Your task to perform on an android device: Find coffee shops on Maps Image 0: 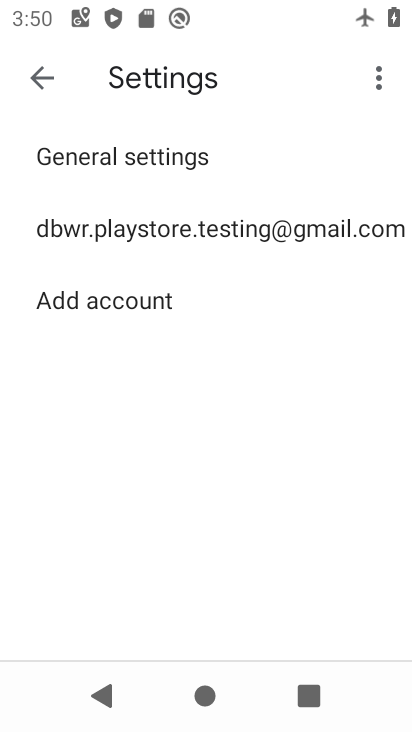
Step 0: press home button
Your task to perform on an android device: Find coffee shops on Maps Image 1: 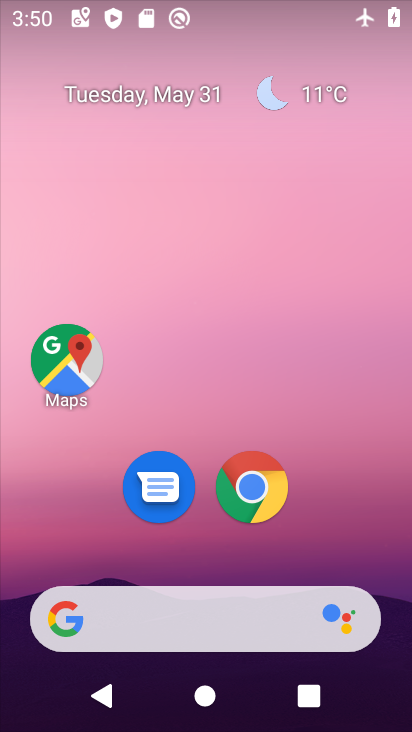
Step 1: click (63, 361)
Your task to perform on an android device: Find coffee shops on Maps Image 2: 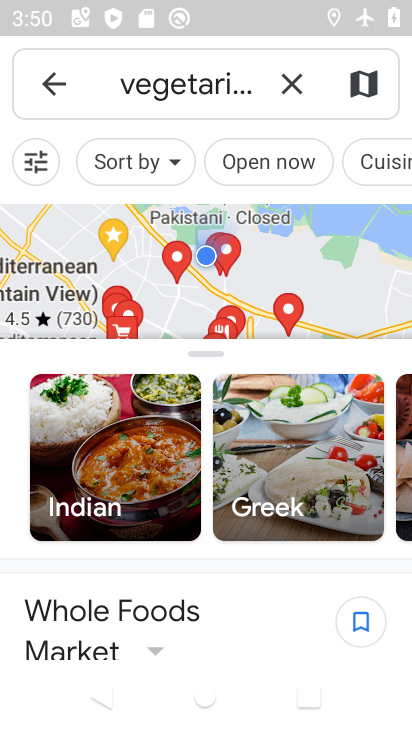
Step 2: click (286, 91)
Your task to perform on an android device: Find coffee shops on Maps Image 3: 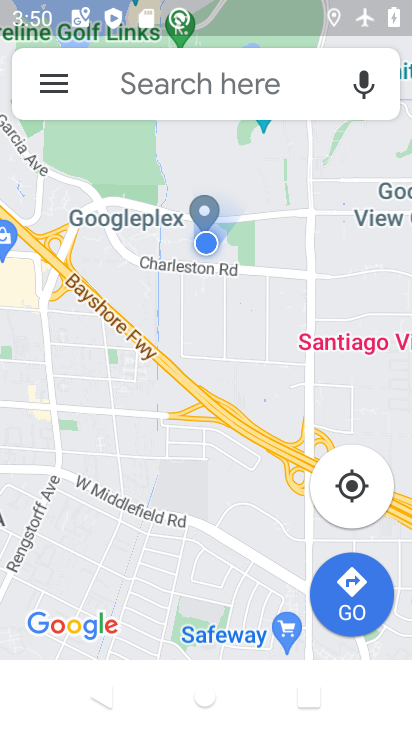
Step 3: click (242, 87)
Your task to perform on an android device: Find coffee shops on Maps Image 4: 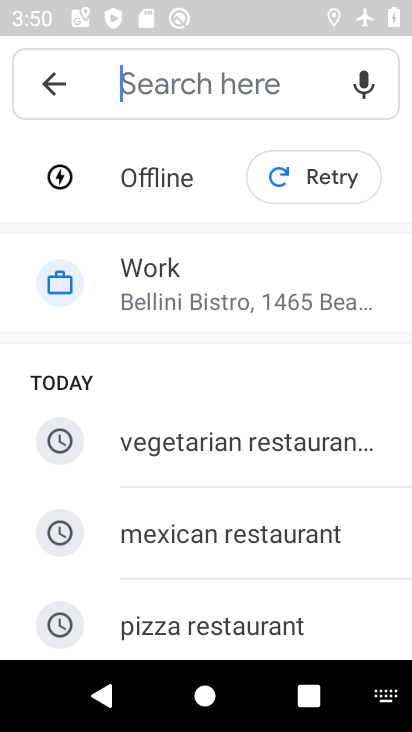
Step 4: type "coffee shops"
Your task to perform on an android device: Find coffee shops on Maps Image 5: 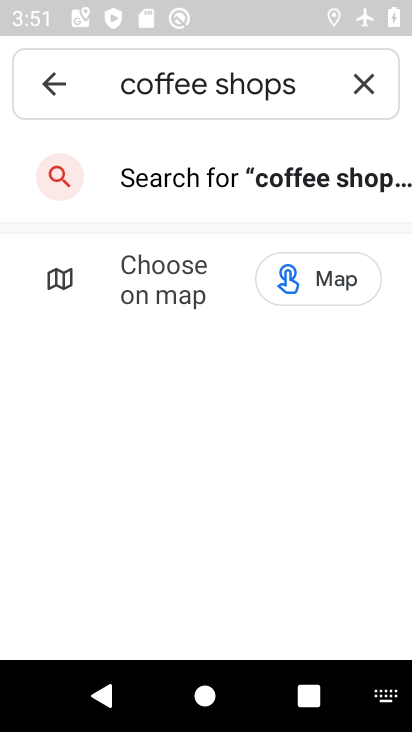
Step 5: task complete